Your task to perform on an android device: Clear the shopping cart on bestbuy.com. Search for dell alienware on bestbuy.com, select the first entry, and add it to the cart. Image 0: 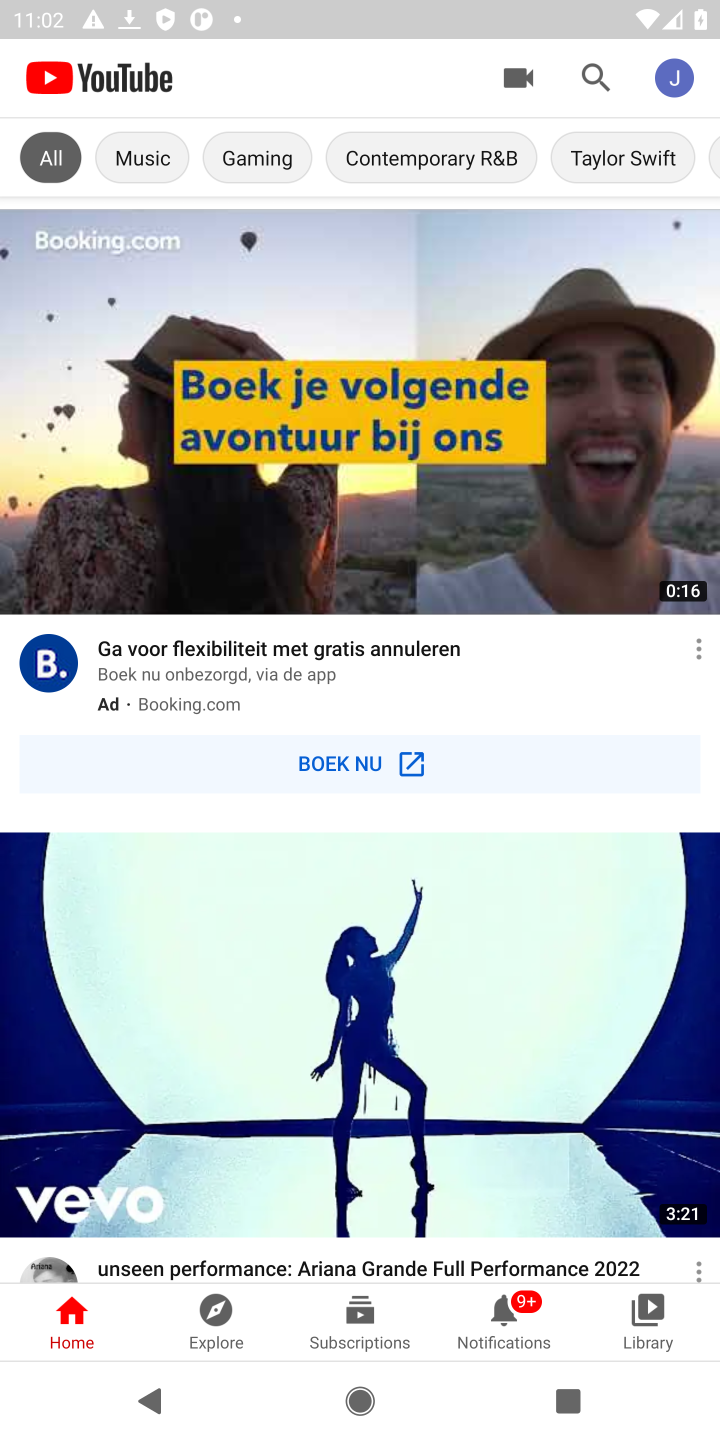
Step 0: press home button
Your task to perform on an android device: Clear the shopping cart on bestbuy.com. Search for dell alienware on bestbuy.com, select the first entry, and add it to the cart. Image 1: 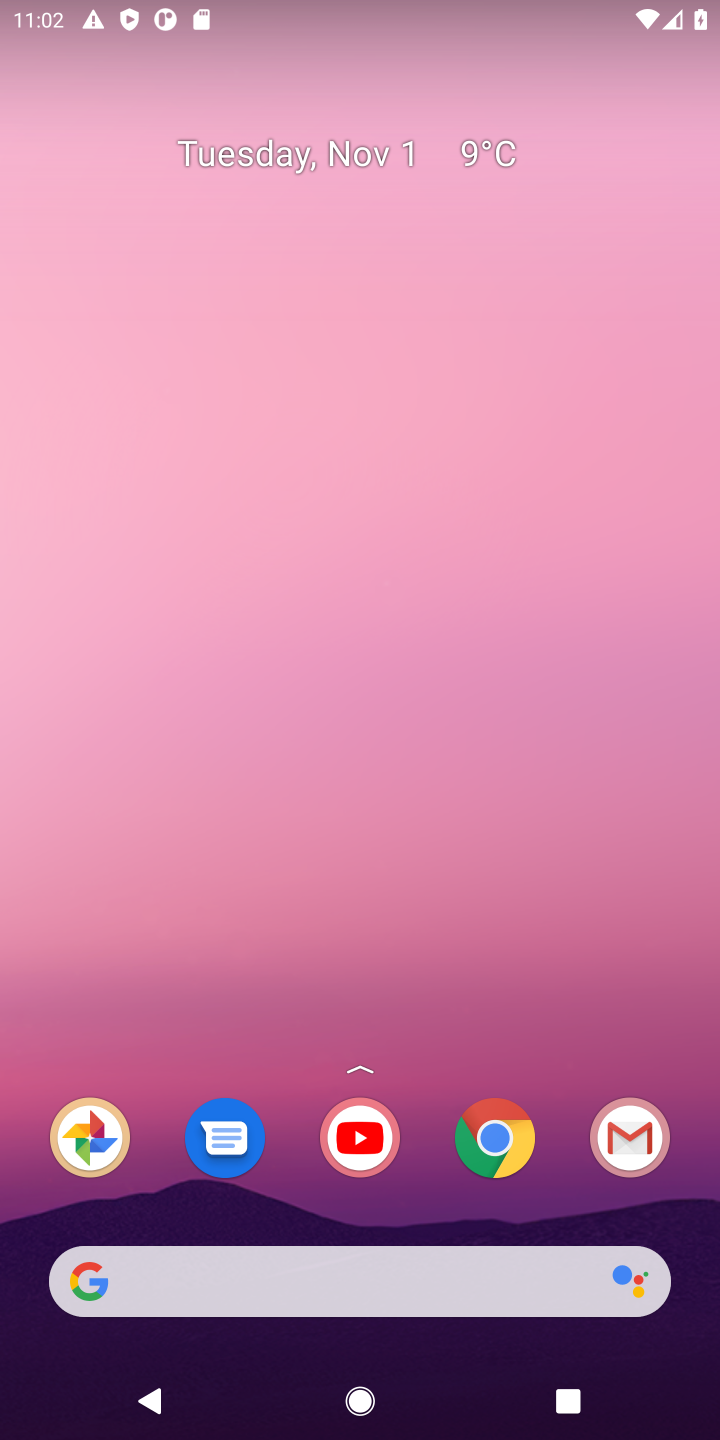
Step 1: click (420, 1281)
Your task to perform on an android device: Clear the shopping cart on bestbuy.com. Search for dell alienware on bestbuy.com, select the first entry, and add it to the cart. Image 2: 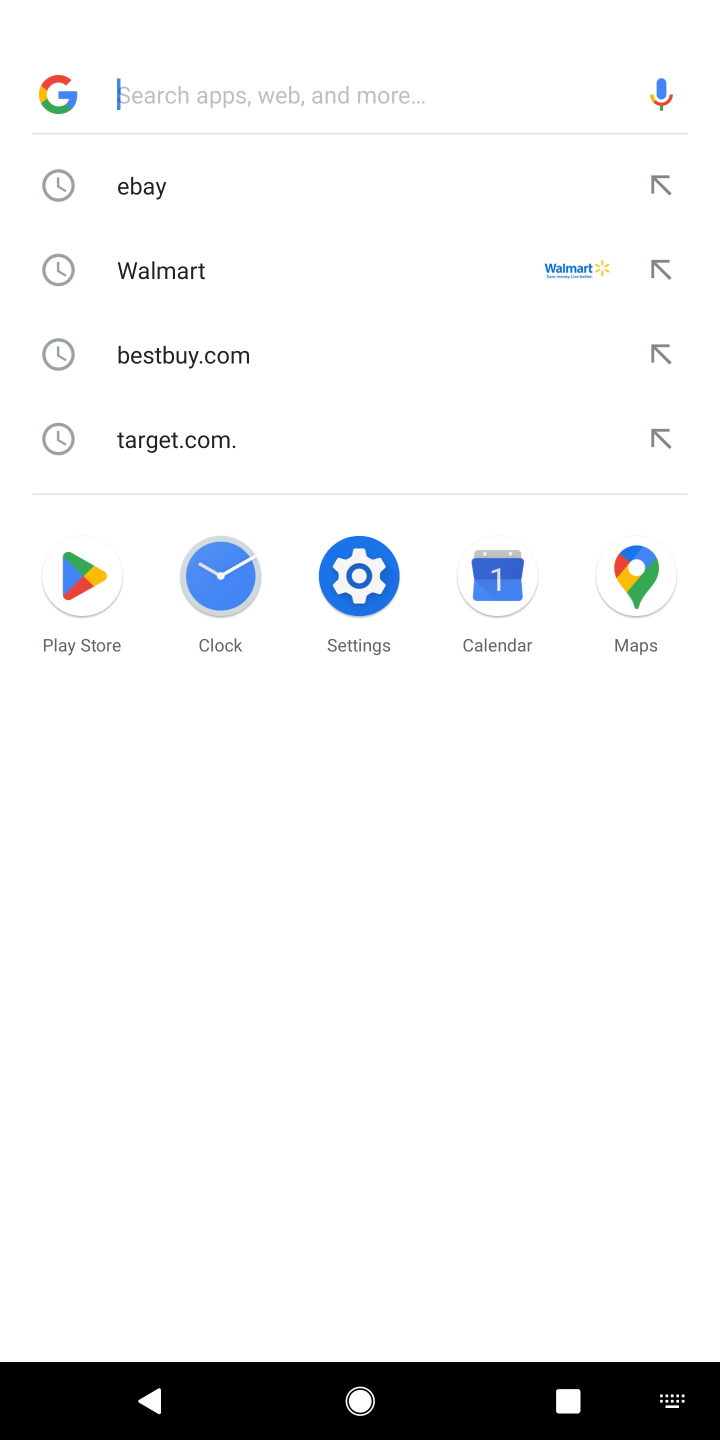
Step 2: drag from (38, 1403) to (704, 1287)
Your task to perform on an android device: Clear the shopping cart on bestbuy.com. Search for dell alienware on bestbuy.com, select the first entry, and add it to the cart. Image 3: 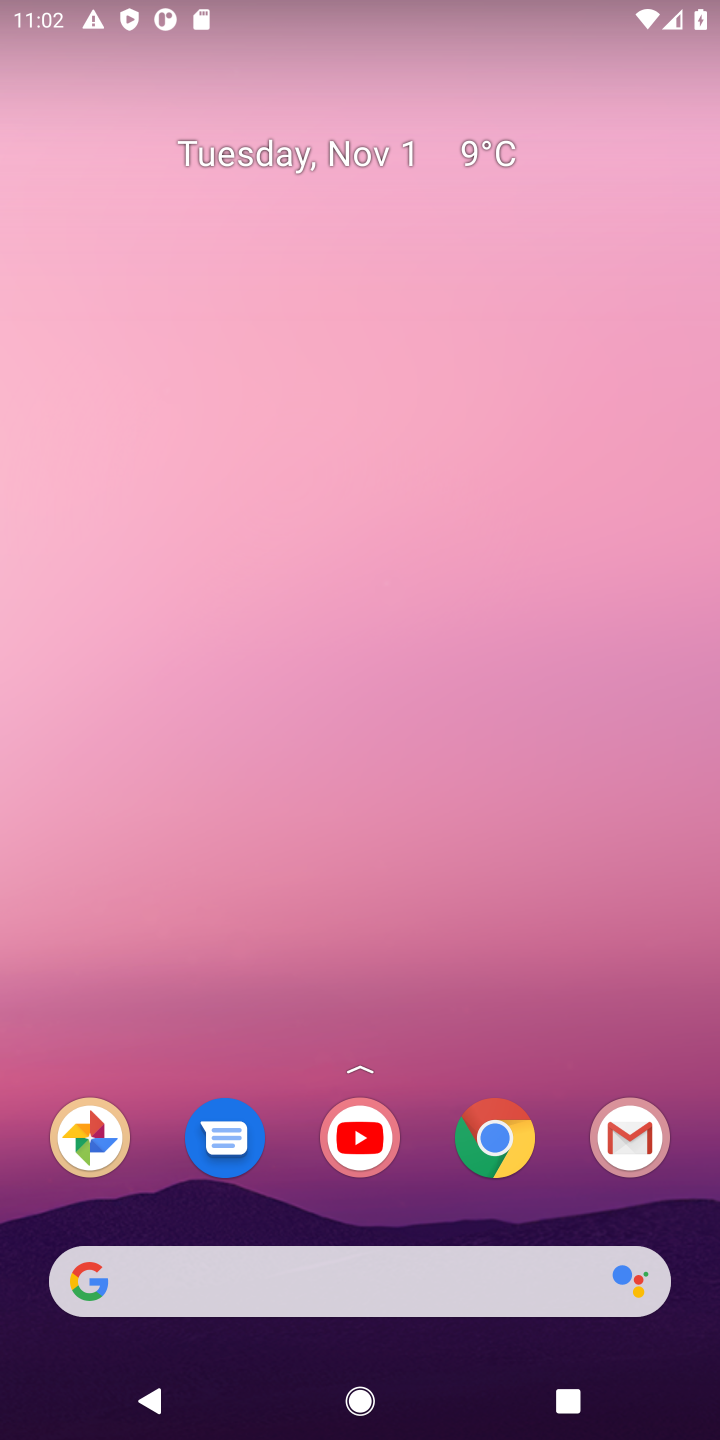
Step 3: click (298, 1283)
Your task to perform on an android device: Clear the shopping cart on bestbuy.com. Search for dell alienware on bestbuy.com, select the first entry, and add it to the cart. Image 4: 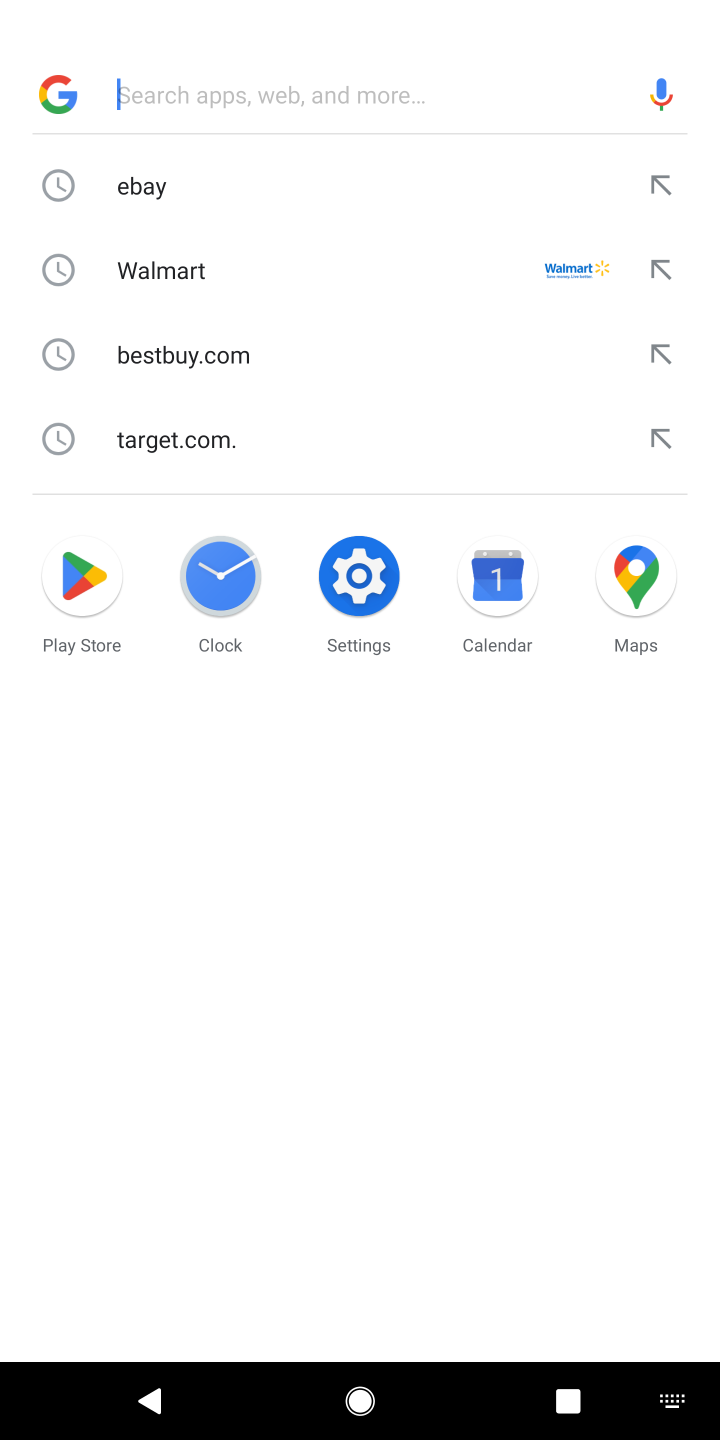
Step 4: click (692, 1381)
Your task to perform on an android device: Clear the shopping cart on bestbuy.com. Search for dell alienware on bestbuy.com, select the first entry, and add it to the cart. Image 5: 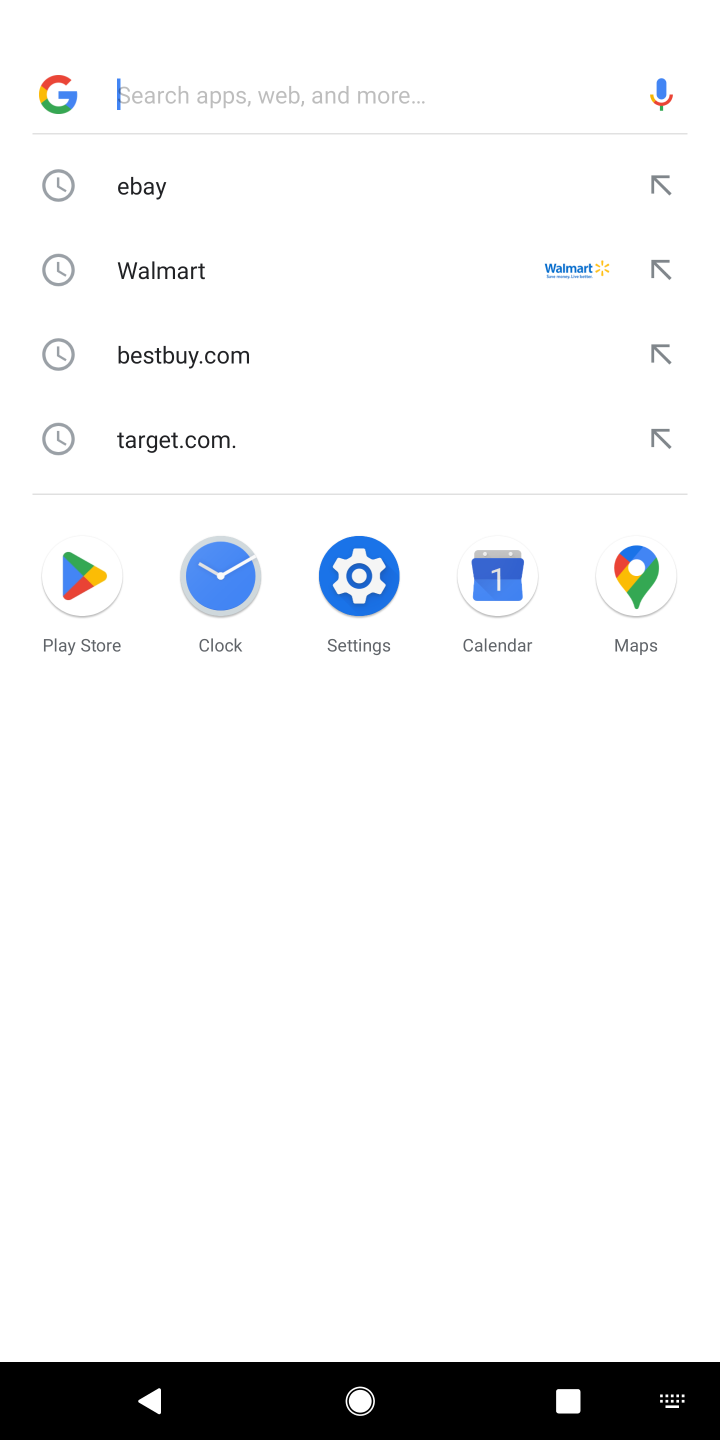
Step 5: type "bestbuy.com"
Your task to perform on an android device: Clear the shopping cart on bestbuy.com. Search for dell alienware on bestbuy.com, select the first entry, and add it to the cart. Image 6: 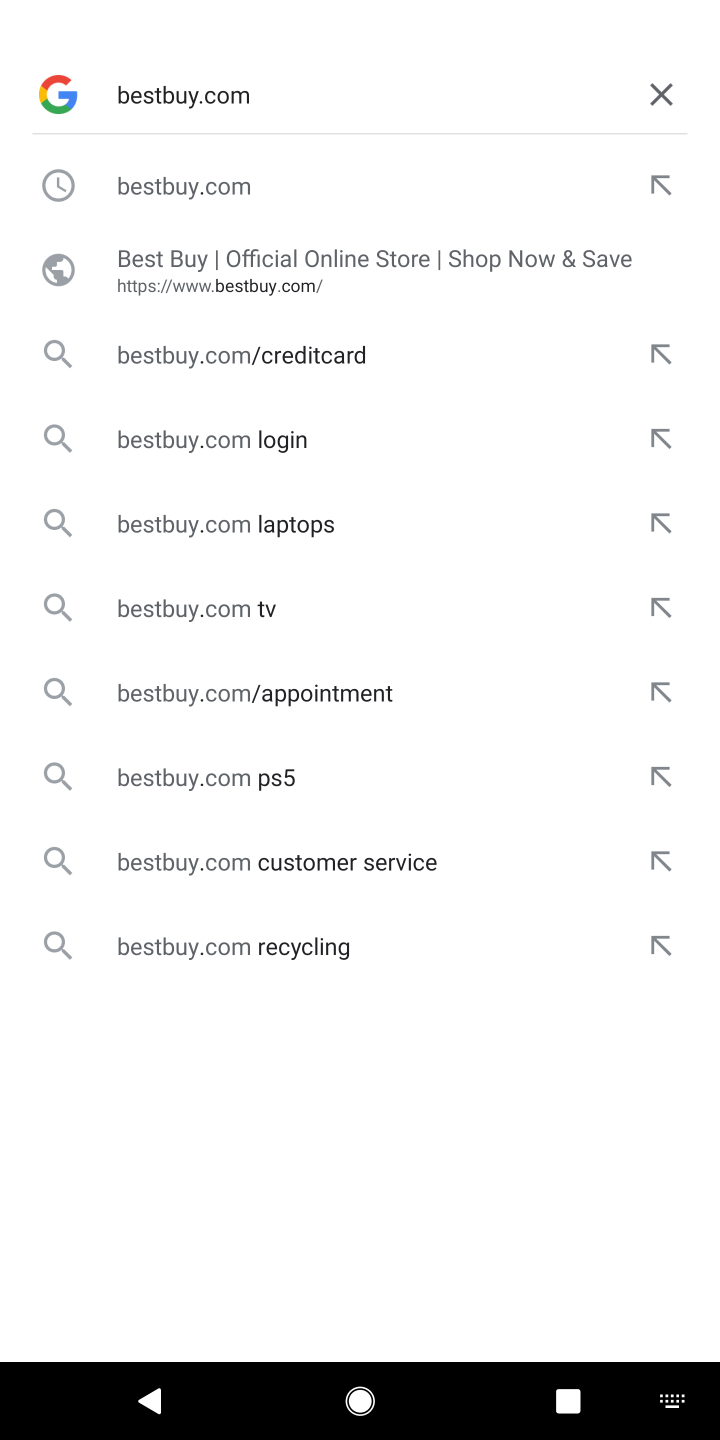
Step 6: type ""
Your task to perform on an android device: Clear the shopping cart on bestbuy.com. Search for dell alienware on bestbuy.com, select the first entry, and add it to the cart. Image 7: 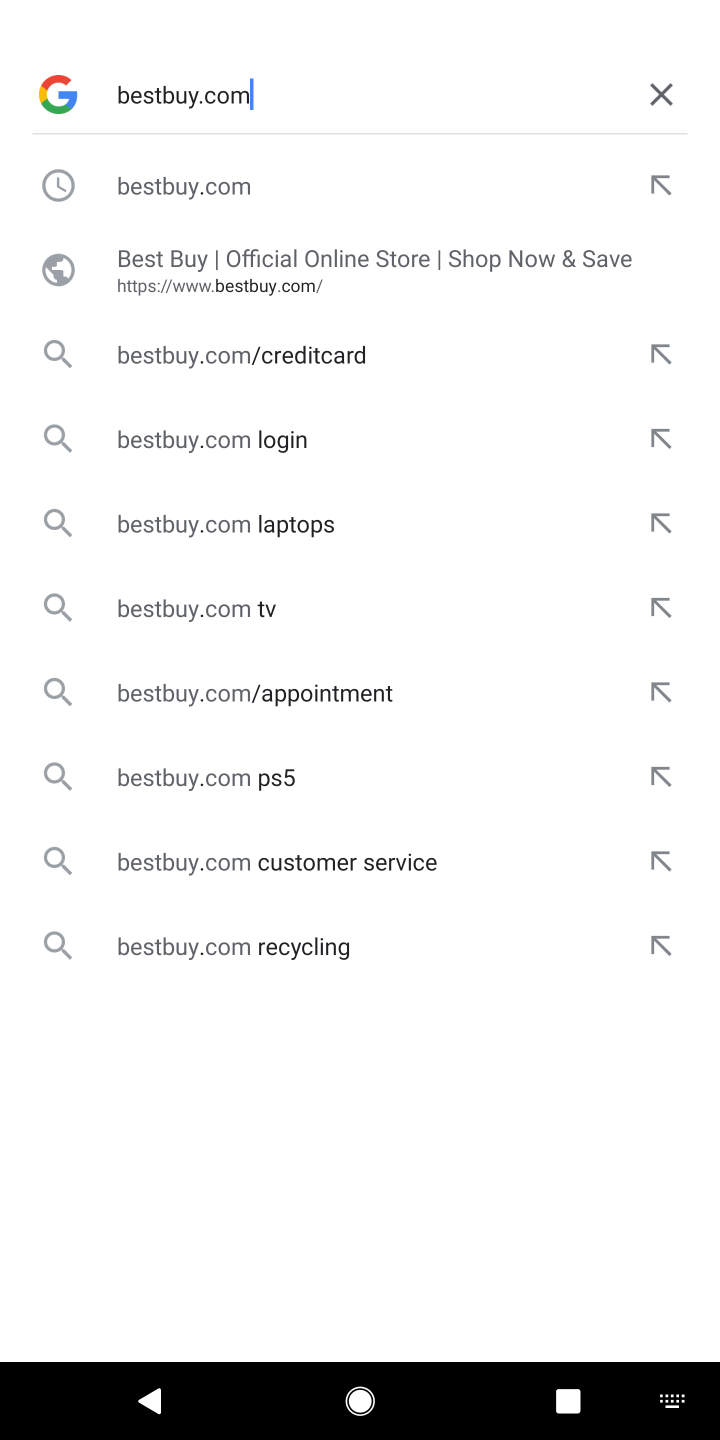
Step 7: click (285, 179)
Your task to perform on an android device: Clear the shopping cart on bestbuy.com. Search for dell alienware on bestbuy.com, select the first entry, and add it to the cart. Image 8: 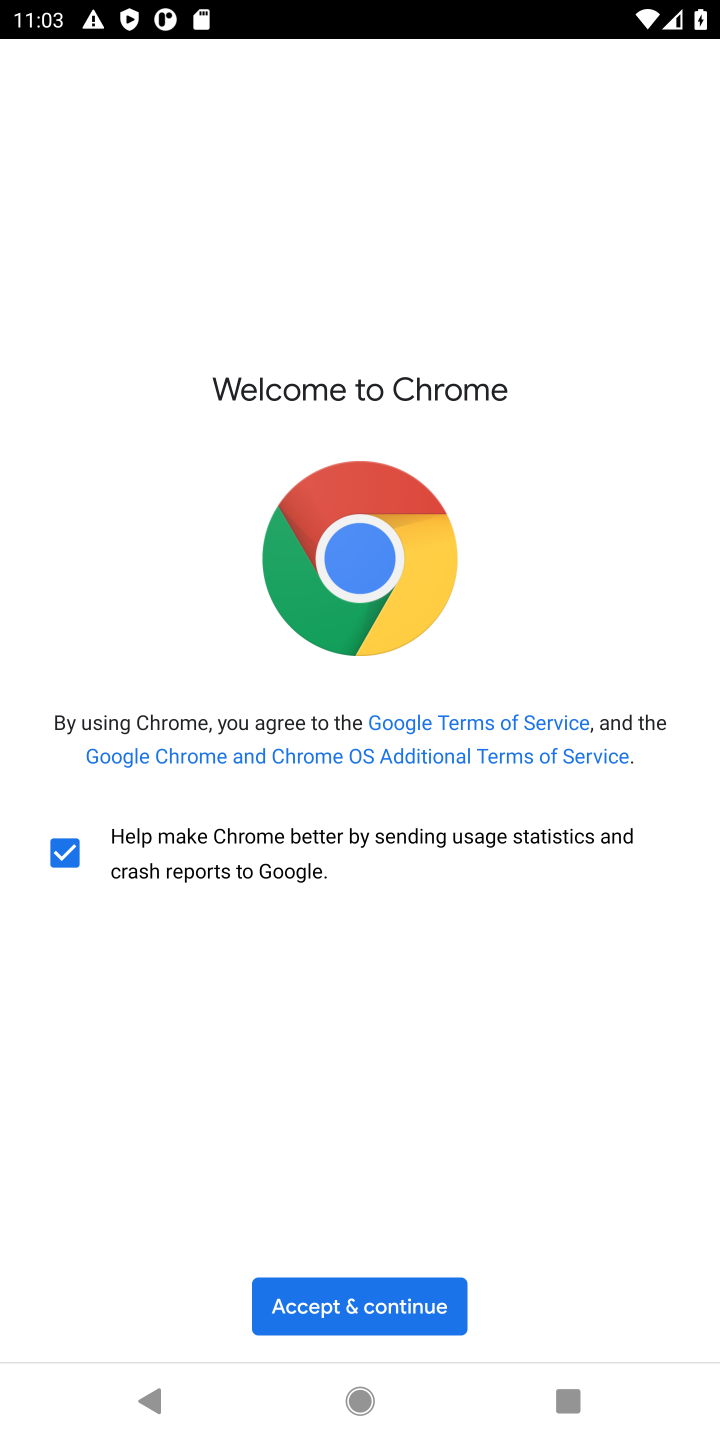
Step 8: click (373, 1278)
Your task to perform on an android device: Clear the shopping cart on bestbuy.com. Search for dell alienware on bestbuy.com, select the first entry, and add it to the cart. Image 9: 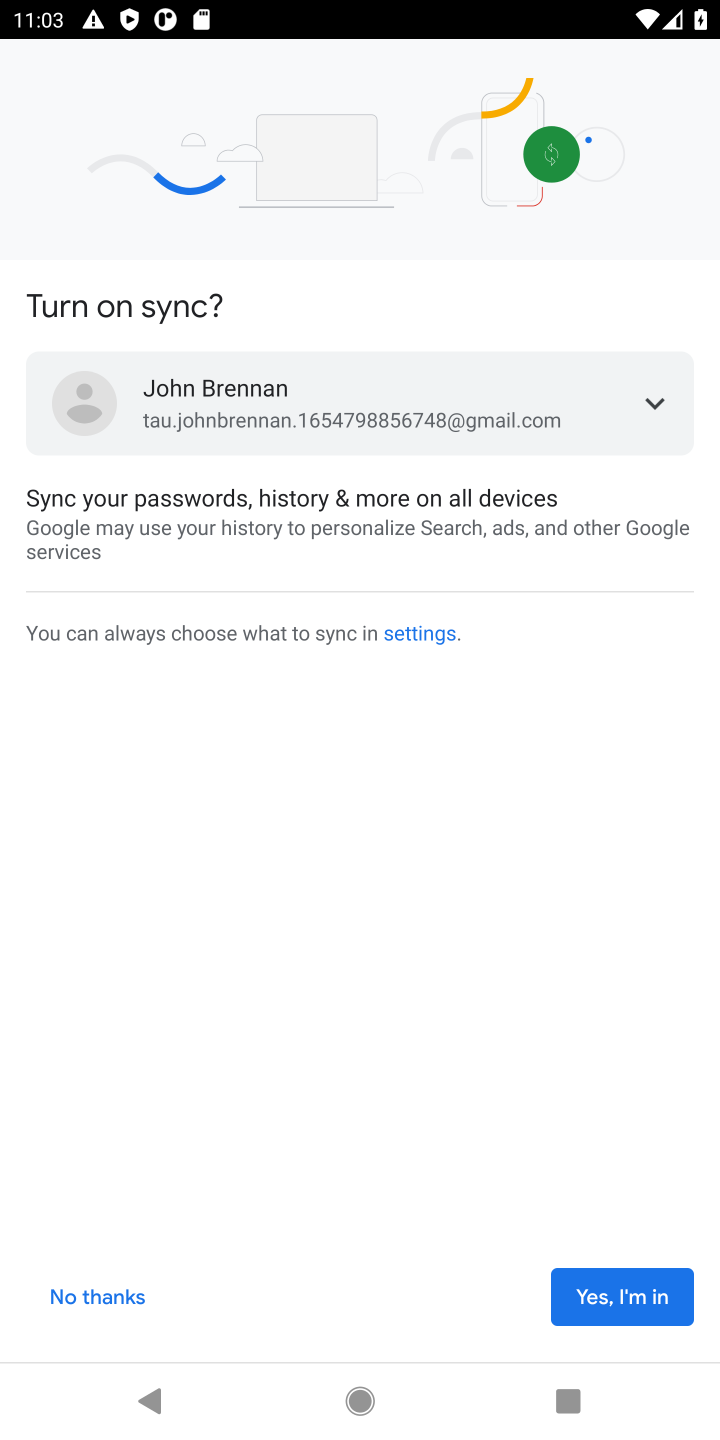
Step 9: click (626, 1285)
Your task to perform on an android device: Clear the shopping cart on bestbuy.com. Search for dell alienware on bestbuy.com, select the first entry, and add it to the cart. Image 10: 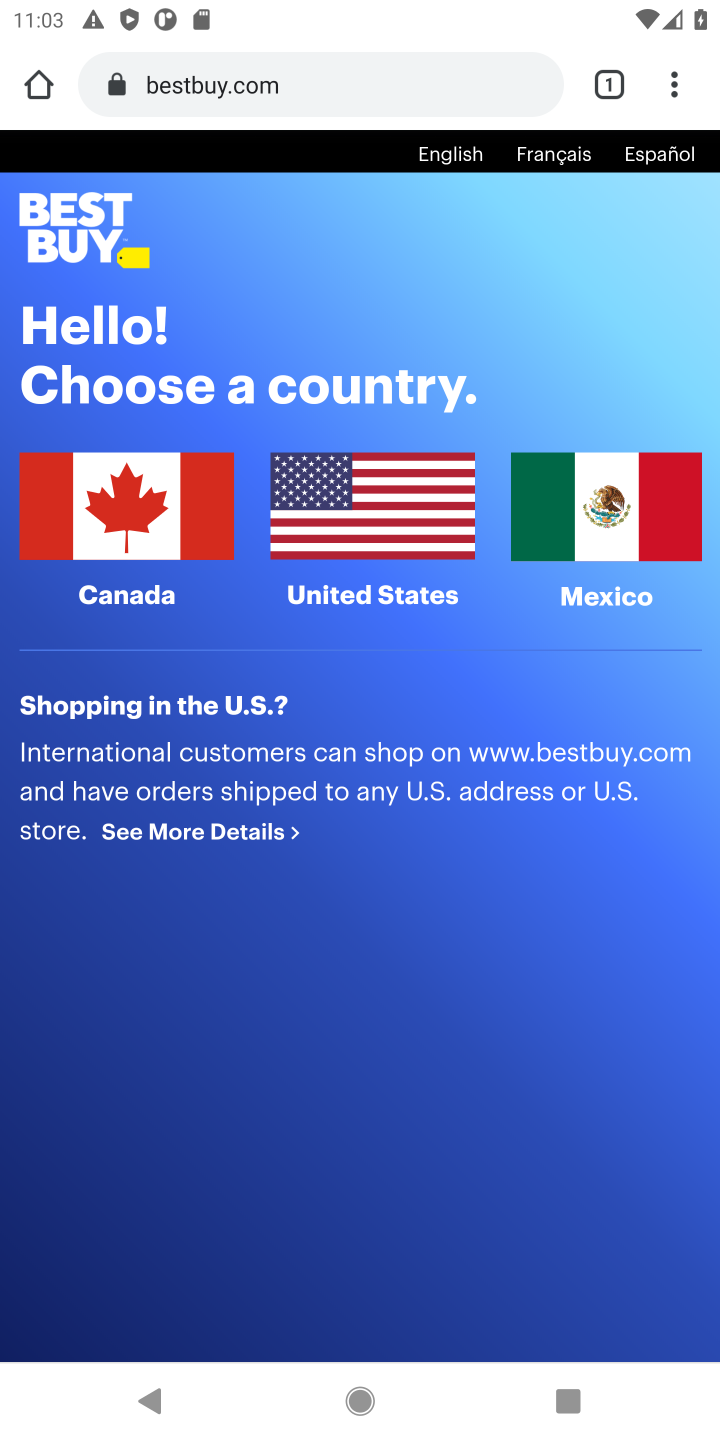
Step 10: click (335, 536)
Your task to perform on an android device: Clear the shopping cart on bestbuy.com. Search for dell alienware on bestbuy.com, select the first entry, and add it to the cart. Image 11: 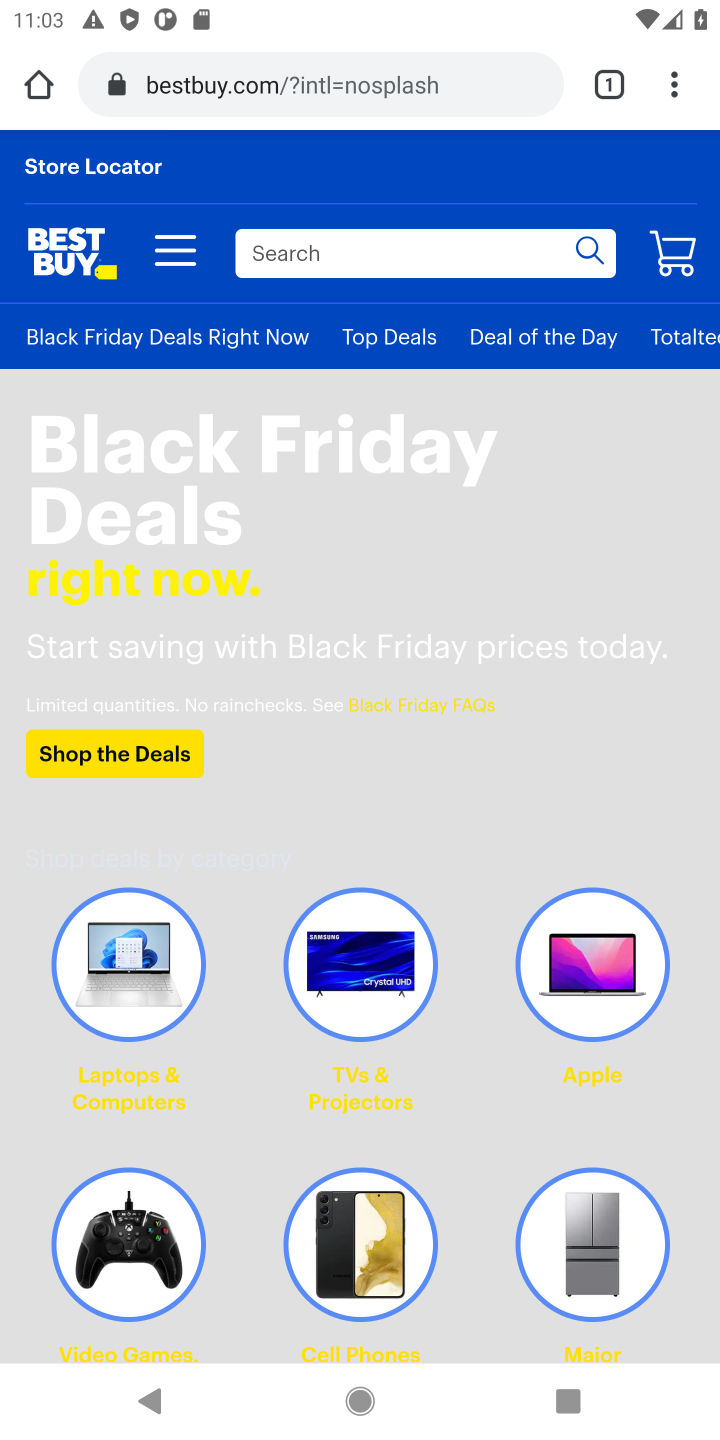
Step 11: click (335, 536)
Your task to perform on an android device: Clear the shopping cart on bestbuy.com. Search for dell alienware on bestbuy.com, select the first entry, and add it to the cart. Image 12: 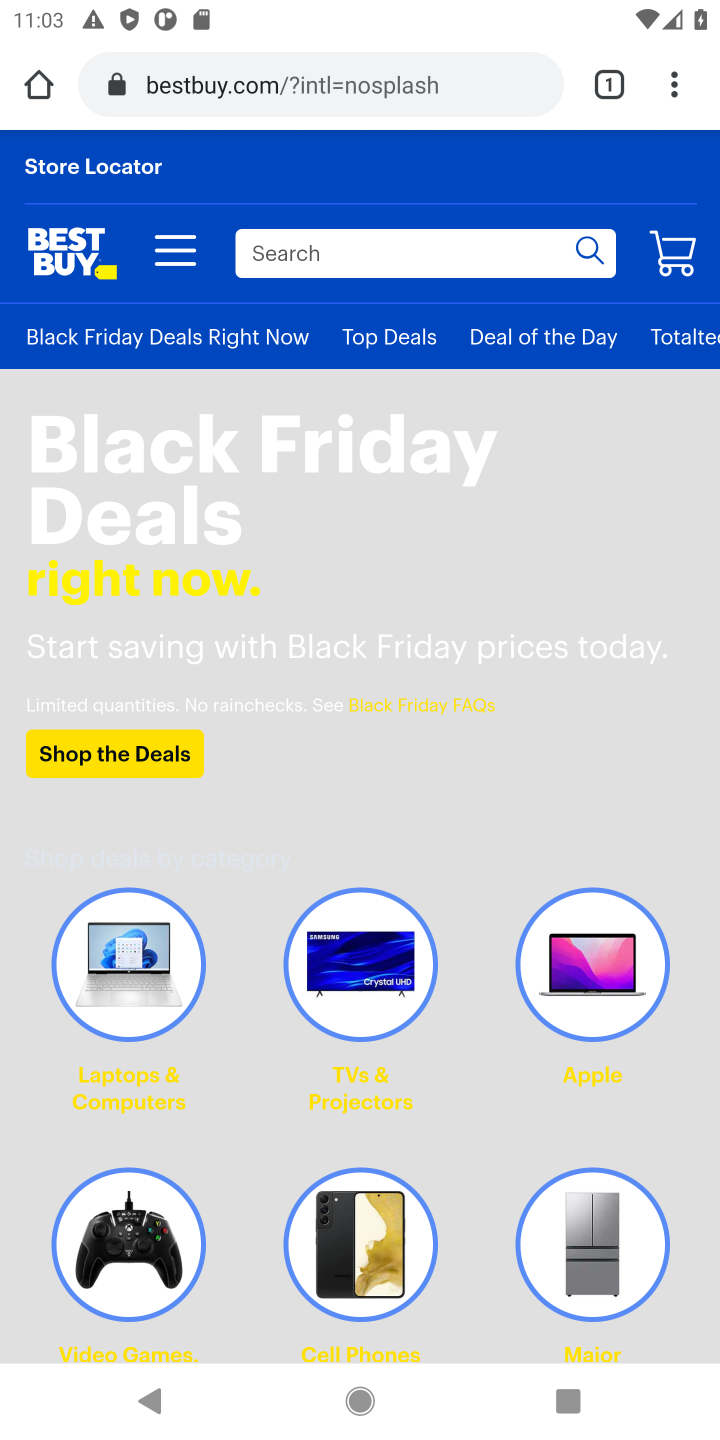
Step 12: click (355, 275)
Your task to perform on an android device: Clear the shopping cart on bestbuy.com. Search for dell alienware on bestbuy.com, select the first entry, and add it to the cart. Image 13: 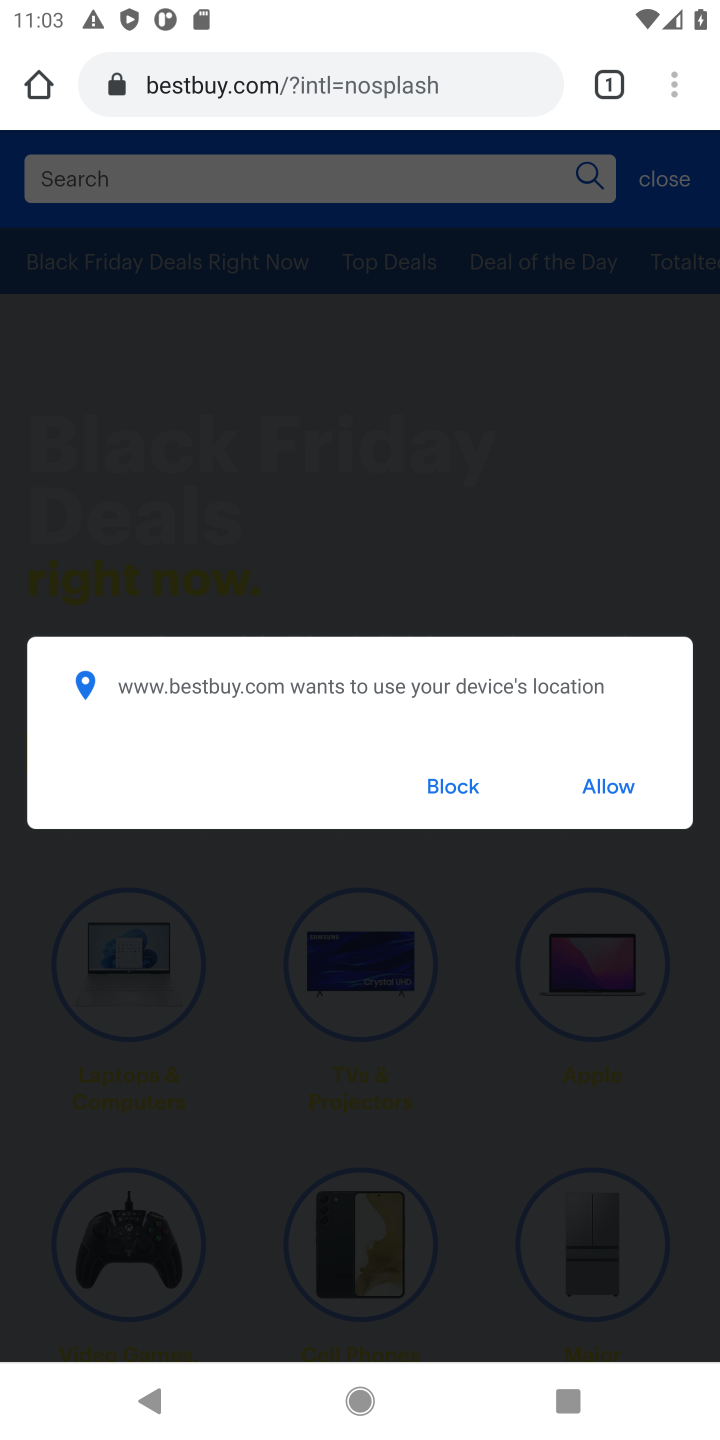
Step 13: click (414, 796)
Your task to perform on an android device: Clear the shopping cart on bestbuy.com. Search for dell alienware on bestbuy.com, select the first entry, and add it to the cart. Image 14: 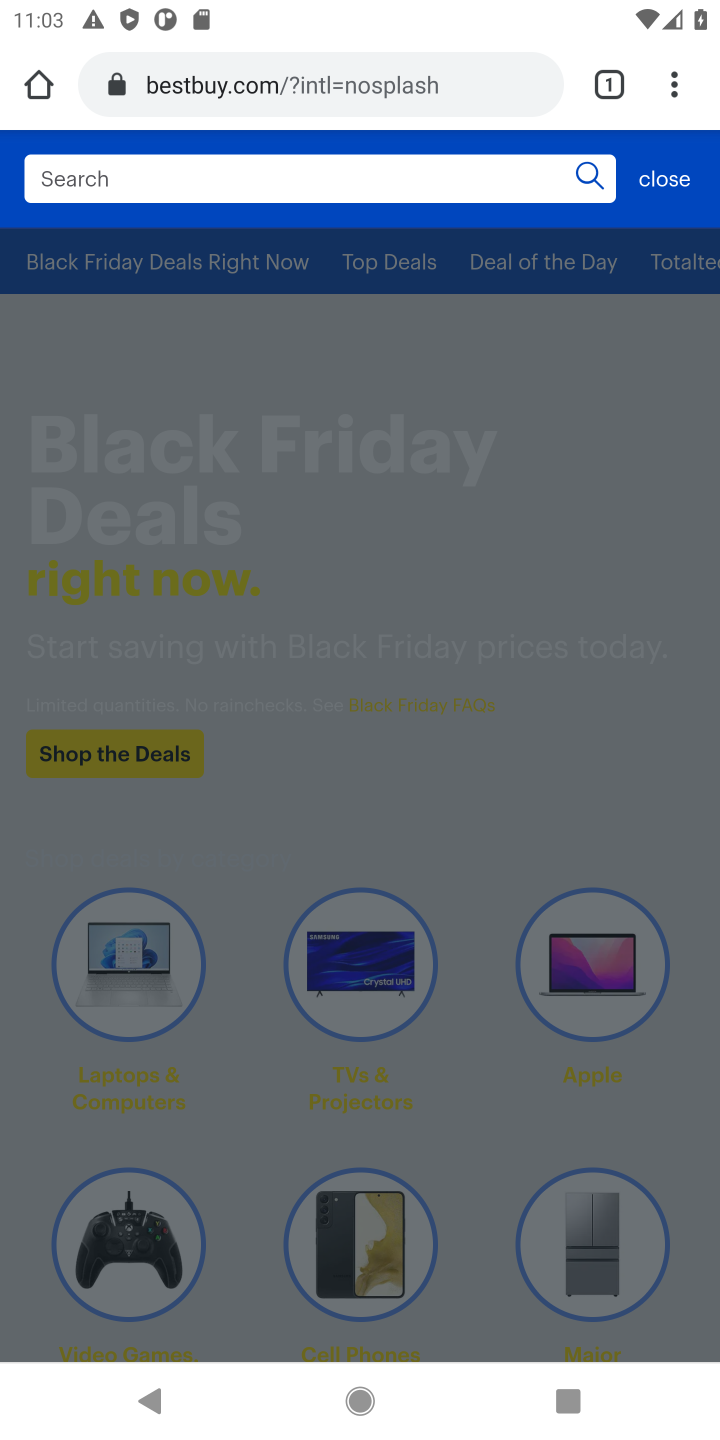
Step 14: click (296, 175)
Your task to perform on an android device: Clear the shopping cart on bestbuy.com. Search for dell alienware on bestbuy.com, select the first entry, and add it to the cart. Image 15: 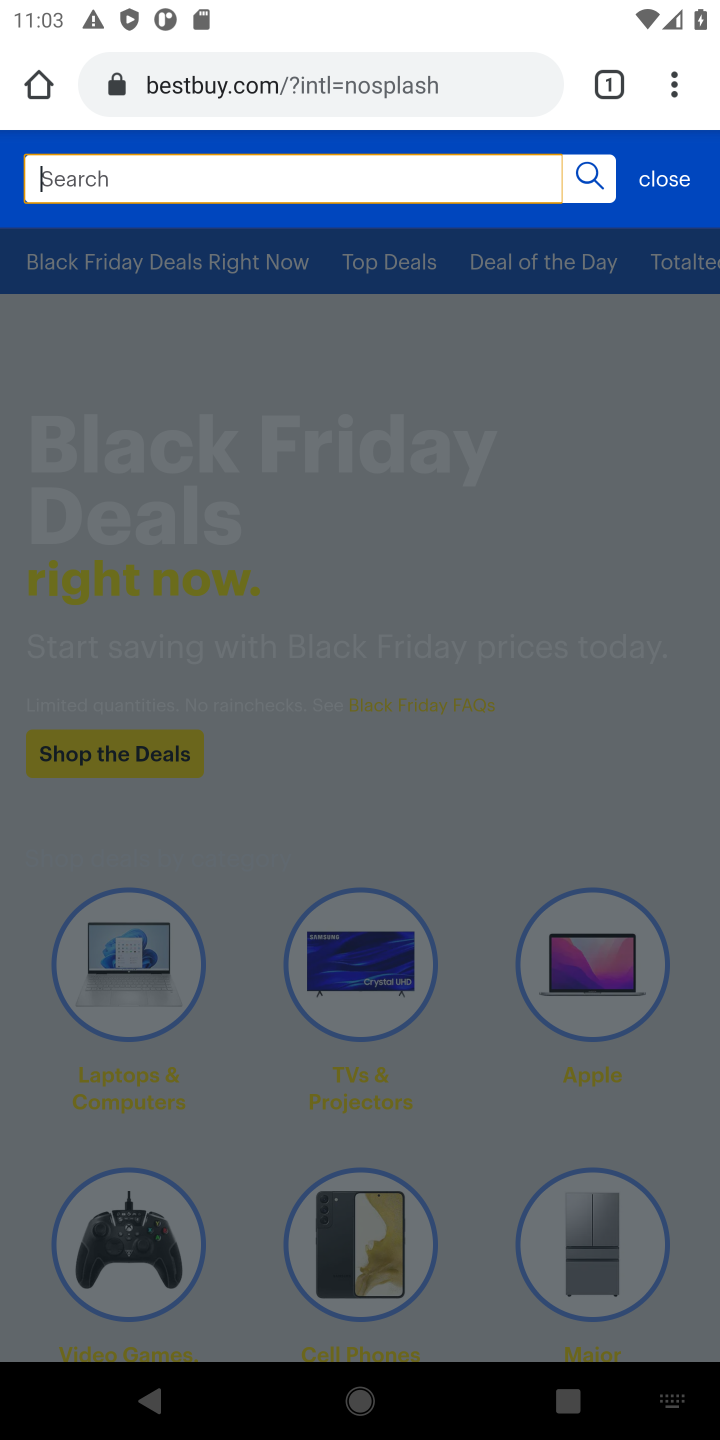
Step 15: type "dell alienware"
Your task to perform on an android device: Clear the shopping cart on bestbuy.com. Search for dell alienware on bestbuy.com, select the first entry, and add it to the cart. Image 16: 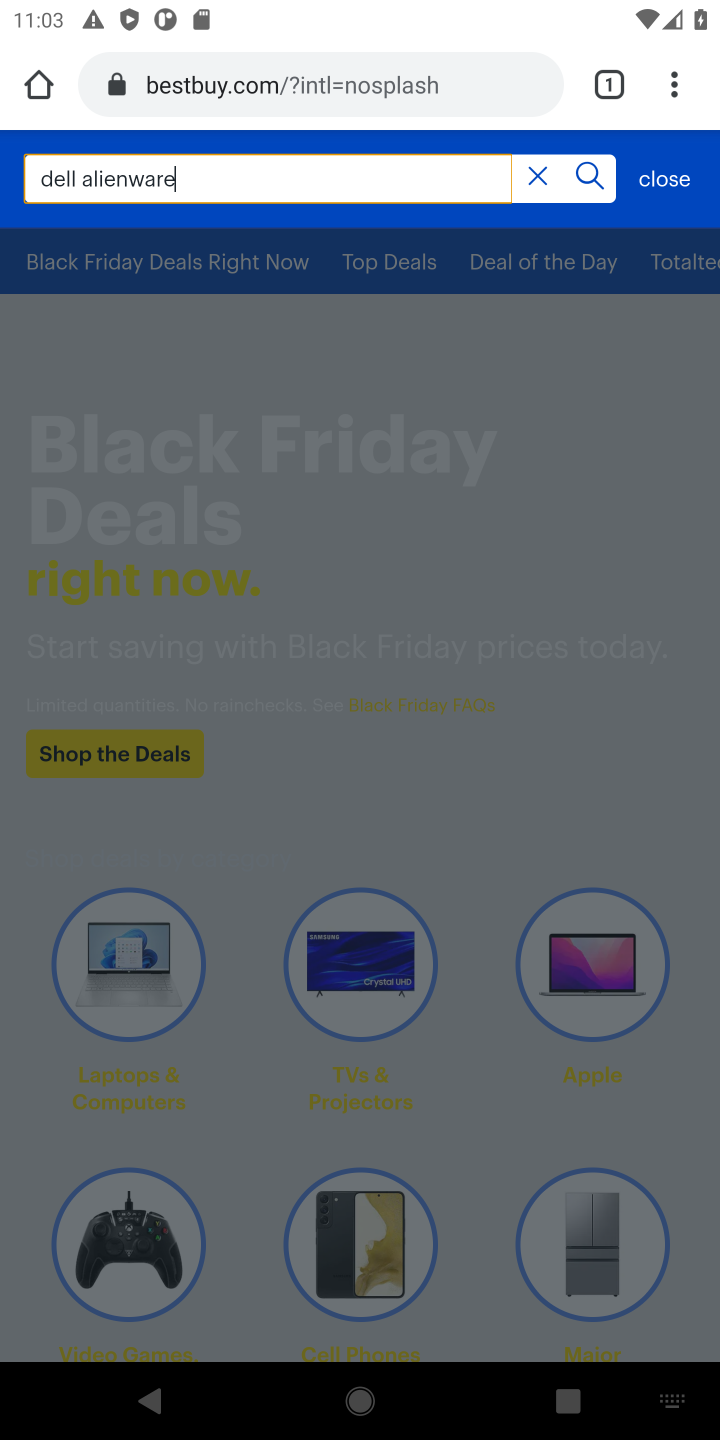
Step 16: type ""
Your task to perform on an android device: Clear the shopping cart on bestbuy.com. Search for dell alienware on bestbuy.com, select the first entry, and add it to the cart. Image 17: 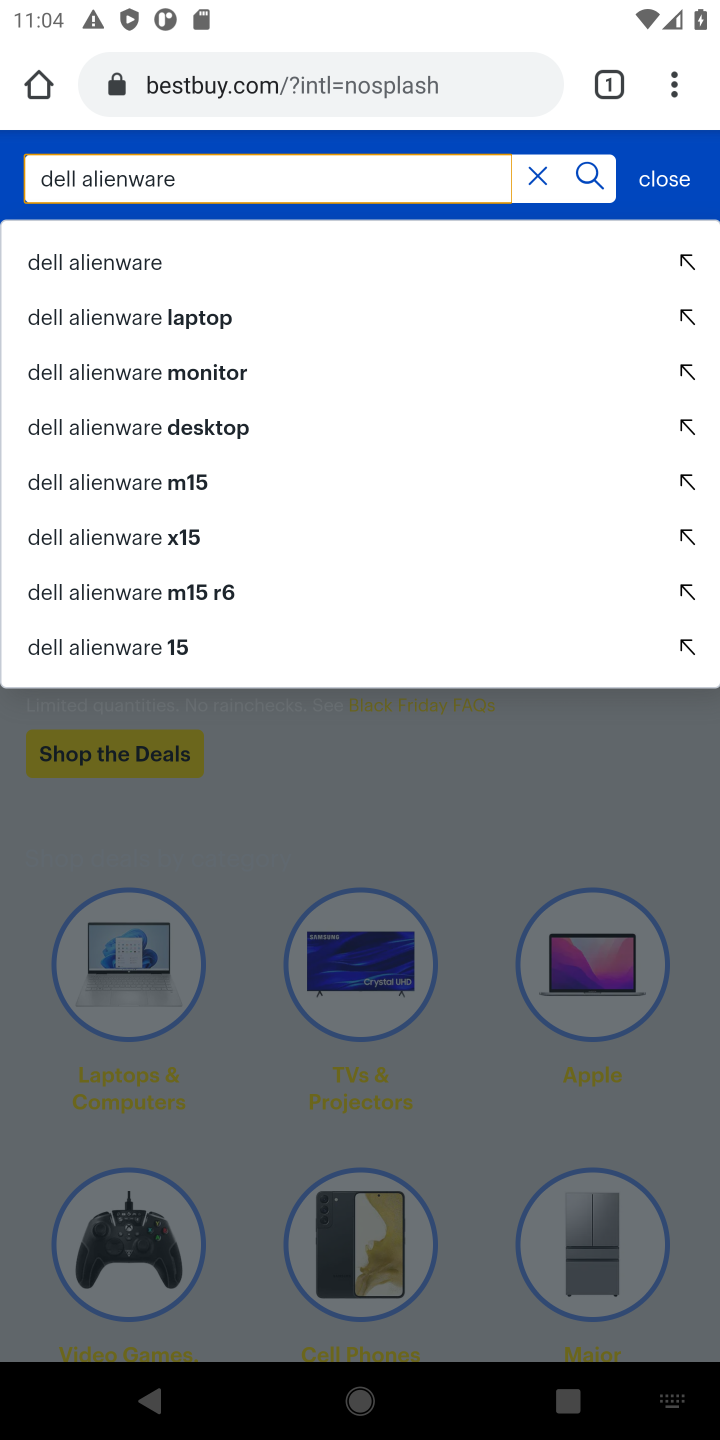
Step 17: click (165, 259)
Your task to perform on an android device: Clear the shopping cart on bestbuy.com. Search for dell alienware on bestbuy.com, select the first entry, and add it to the cart. Image 18: 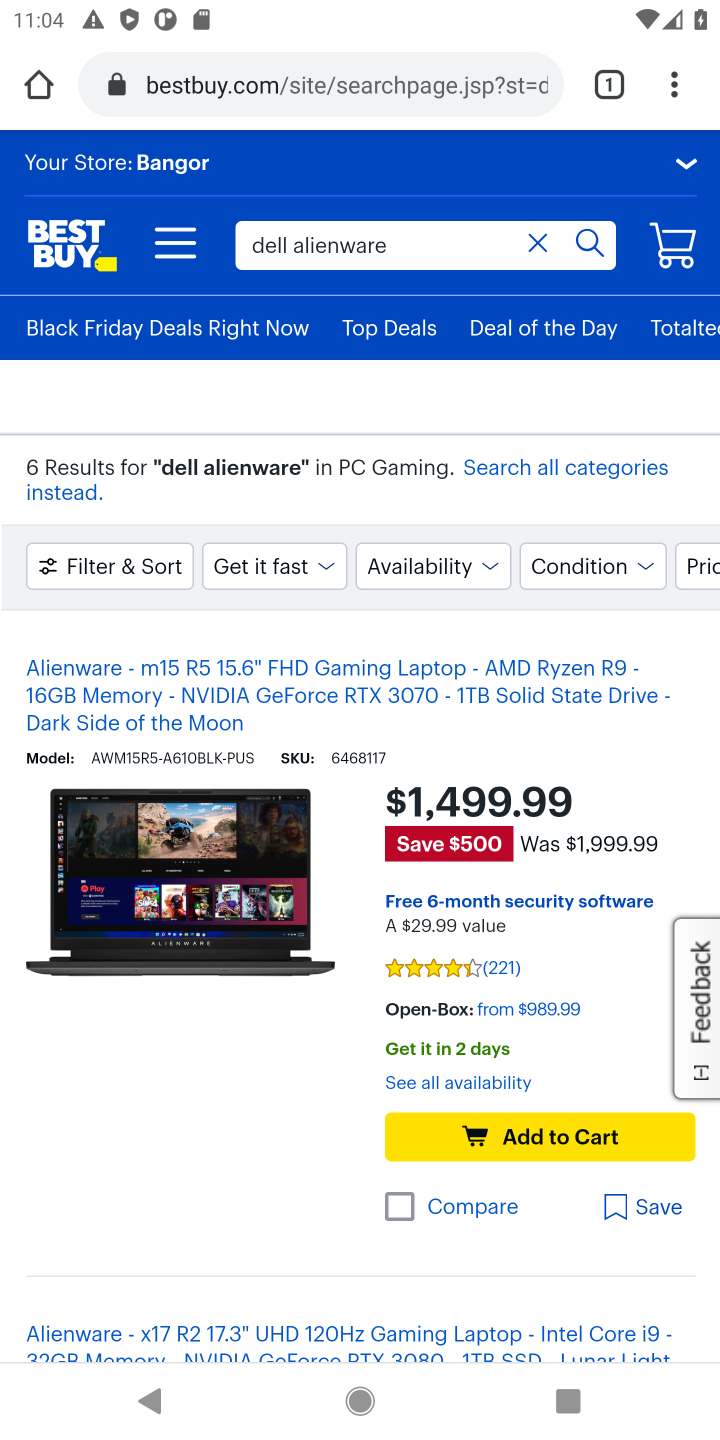
Step 18: click (550, 1114)
Your task to perform on an android device: Clear the shopping cart on bestbuy.com. Search for dell alienware on bestbuy.com, select the first entry, and add it to the cart. Image 19: 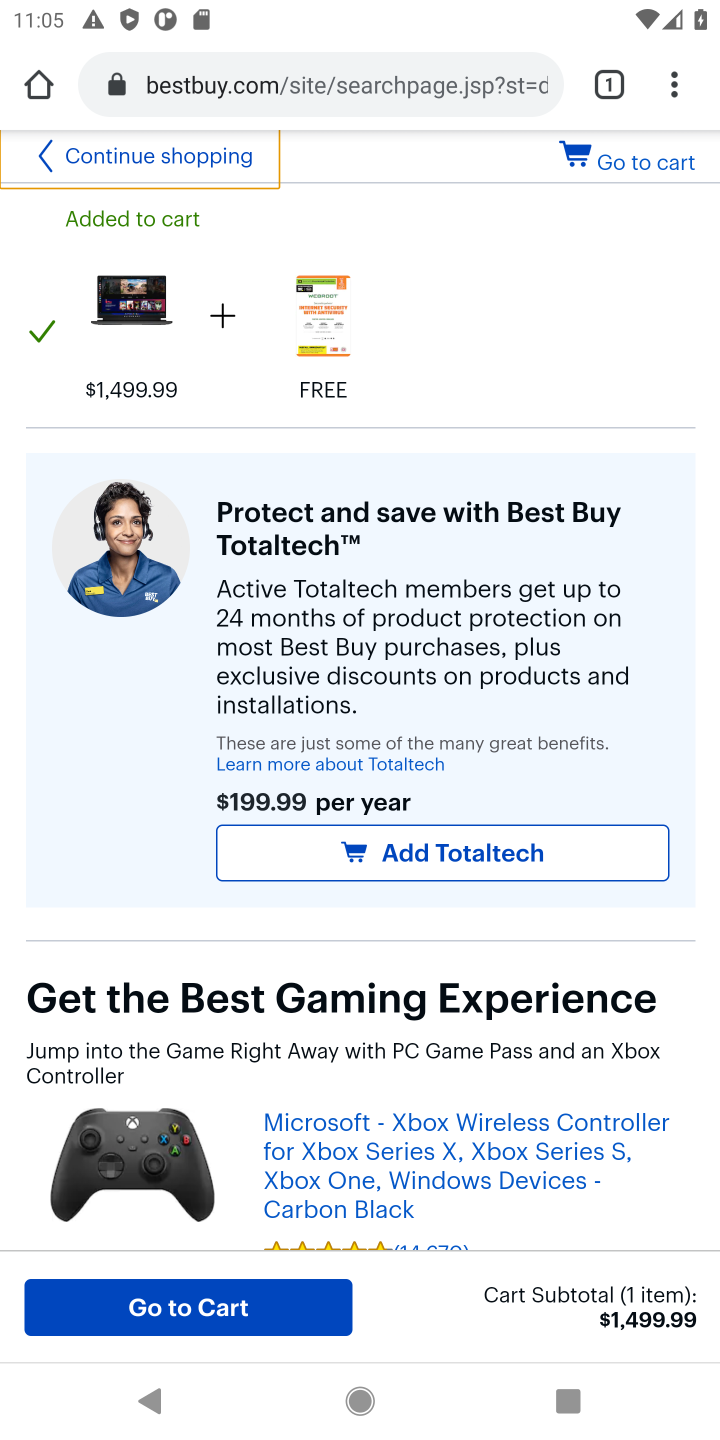
Step 19: task complete